Your task to perform on an android device: Open Wikipedia Image 0: 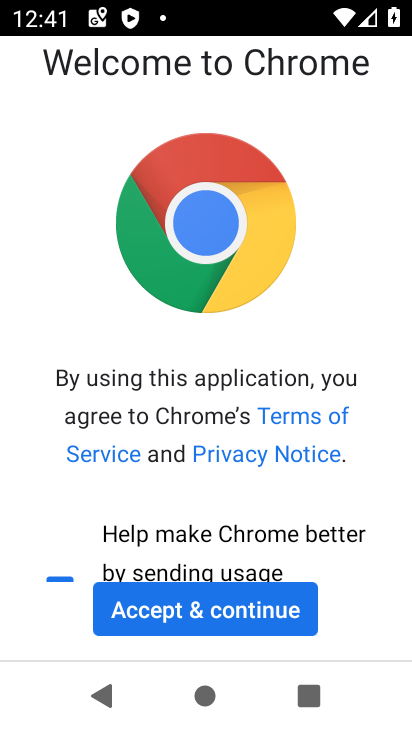
Step 0: click (186, 607)
Your task to perform on an android device: Open Wikipedia Image 1: 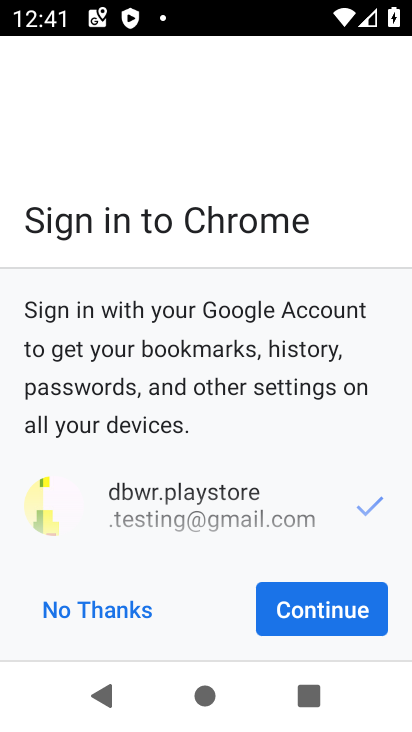
Step 1: click (290, 614)
Your task to perform on an android device: Open Wikipedia Image 2: 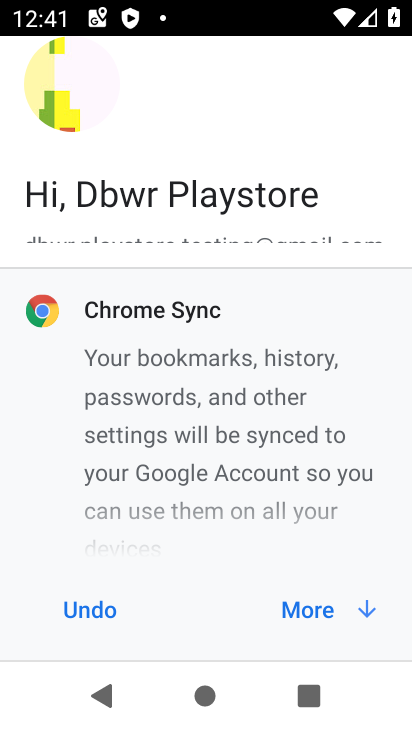
Step 2: click (289, 599)
Your task to perform on an android device: Open Wikipedia Image 3: 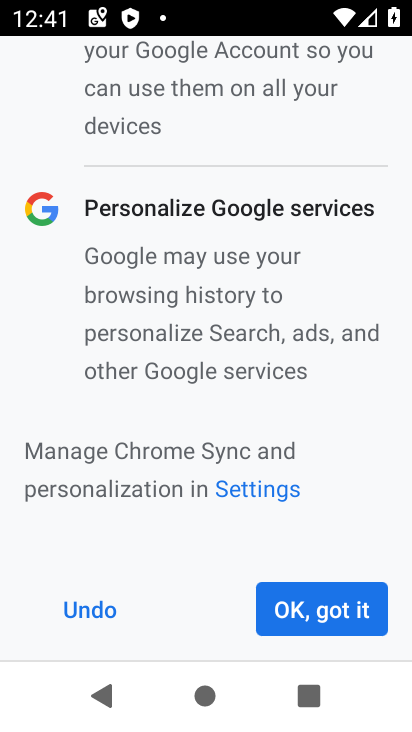
Step 3: click (300, 606)
Your task to perform on an android device: Open Wikipedia Image 4: 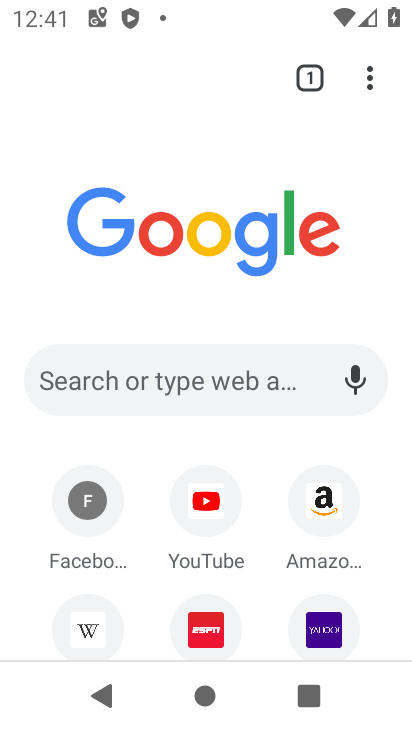
Step 4: click (79, 624)
Your task to perform on an android device: Open Wikipedia Image 5: 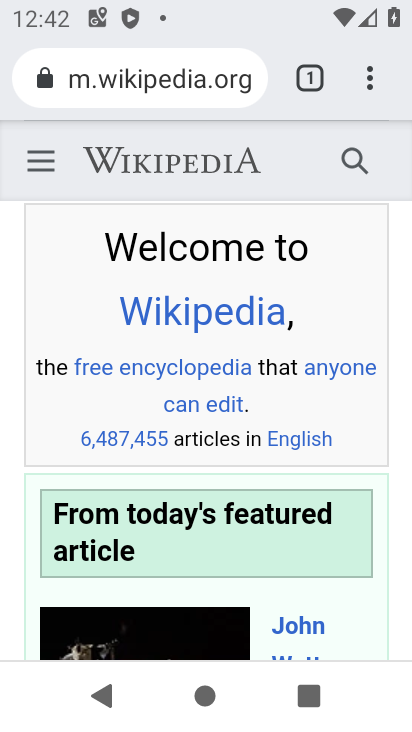
Step 5: task complete